Your task to perform on an android device: open wifi settings Image 0: 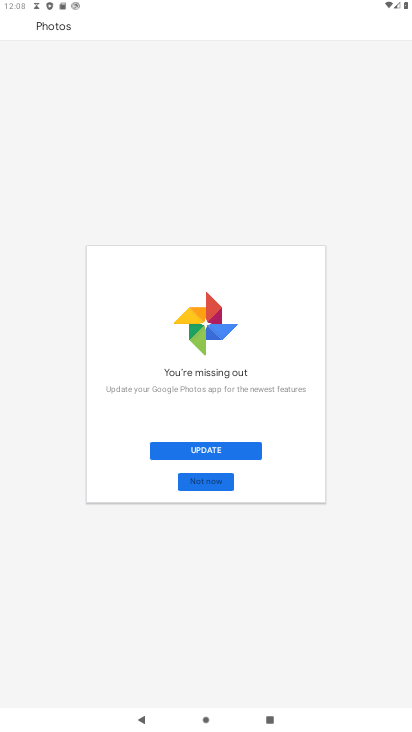
Step 0: press home button
Your task to perform on an android device: open wifi settings Image 1: 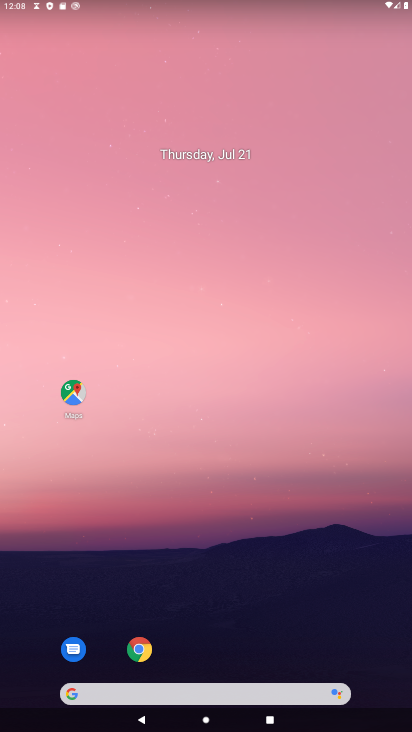
Step 1: drag from (227, 708) to (221, 233)
Your task to perform on an android device: open wifi settings Image 2: 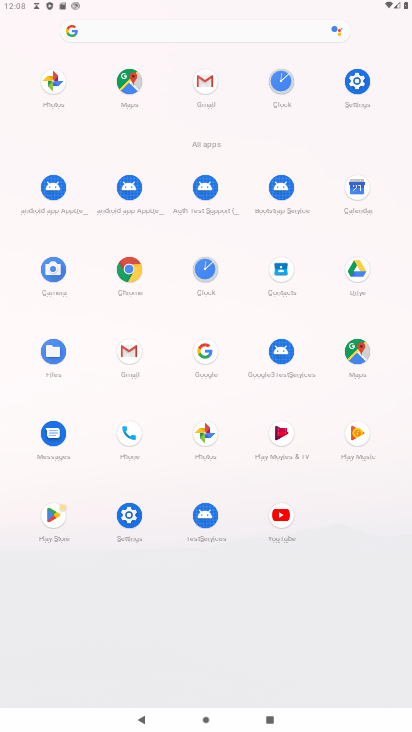
Step 2: click (361, 75)
Your task to perform on an android device: open wifi settings Image 3: 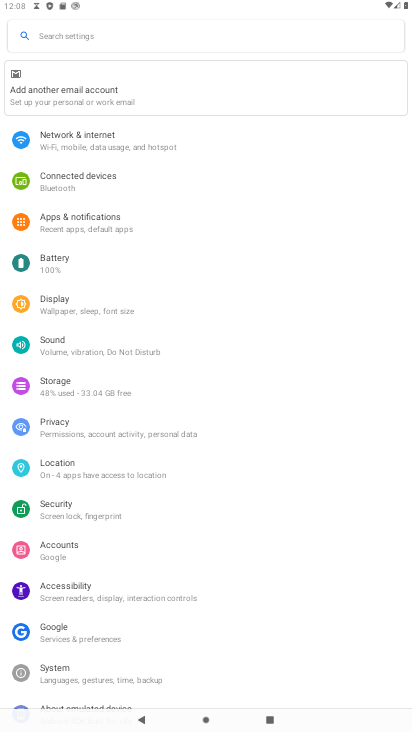
Step 3: click (69, 139)
Your task to perform on an android device: open wifi settings Image 4: 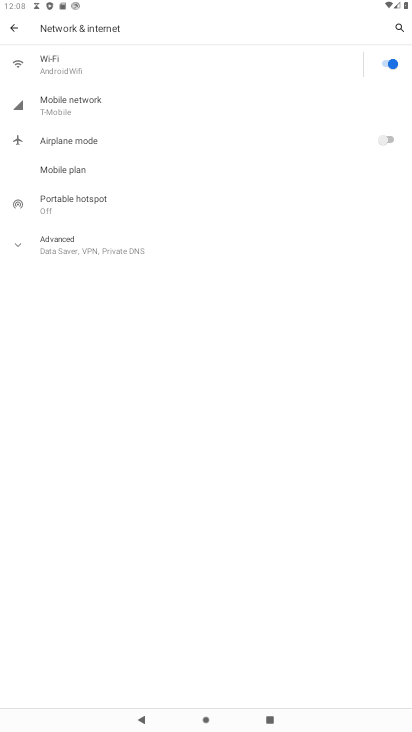
Step 4: click (72, 70)
Your task to perform on an android device: open wifi settings Image 5: 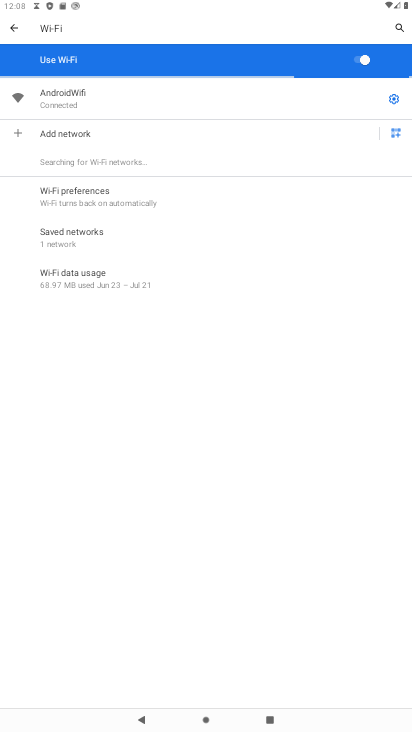
Step 5: task complete